Your task to perform on an android device: Show me recent news Image 0: 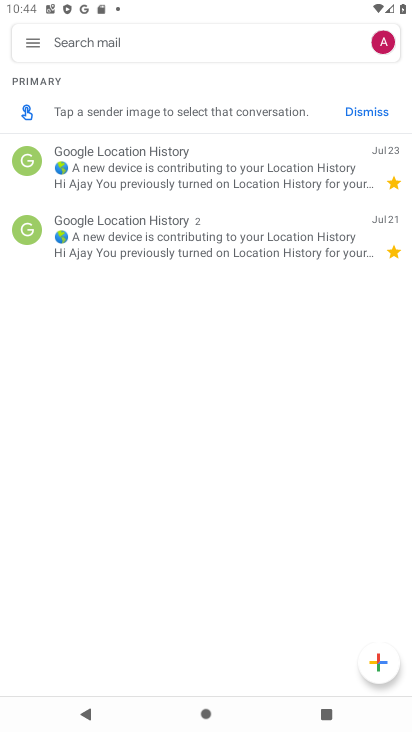
Step 0: press home button
Your task to perform on an android device: Show me recent news Image 1: 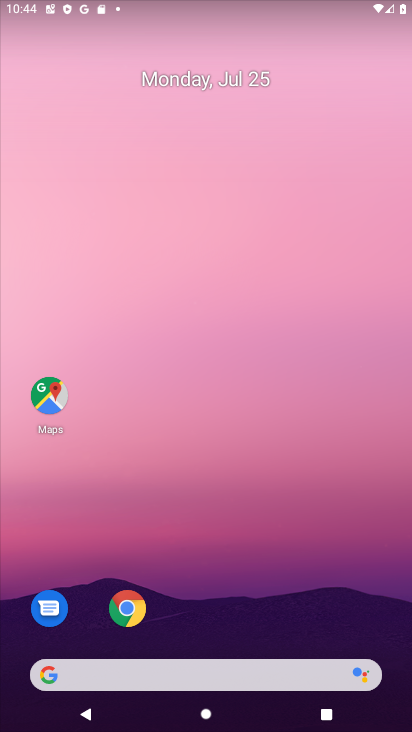
Step 1: drag from (169, 603) to (241, 51)
Your task to perform on an android device: Show me recent news Image 2: 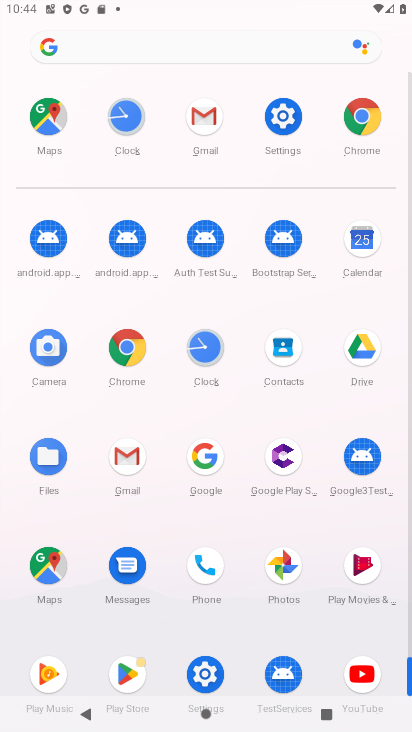
Step 2: click (196, 473)
Your task to perform on an android device: Show me recent news Image 3: 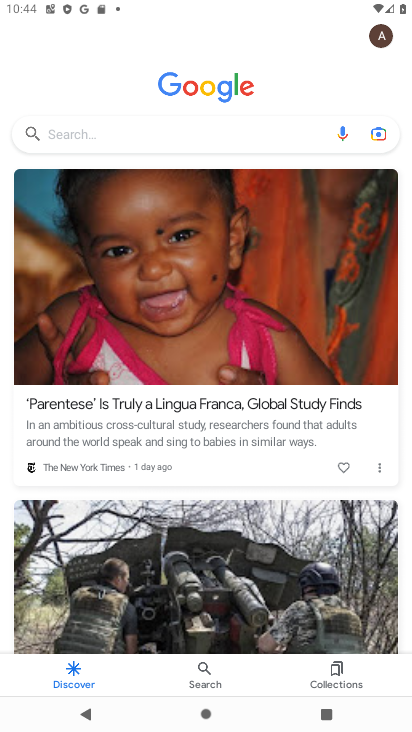
Step 3: click (211, 145)
Your task to perform on an android device: Show me recent news Image 4: 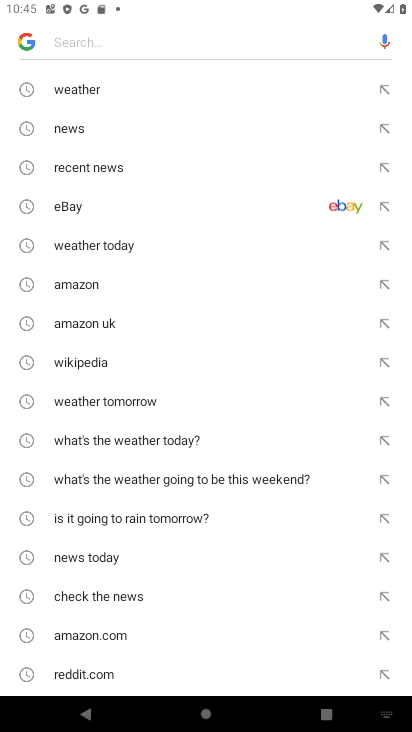
Step 4: click (134, 171)
Your task to perform on an android device: Show me recent news Image 5: 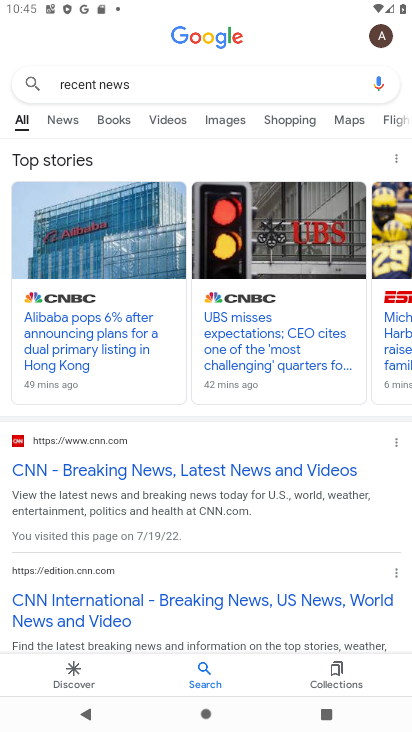
Step 5: click (76, 122)
Your task to perform on an android device: Show me recent news Image 6: 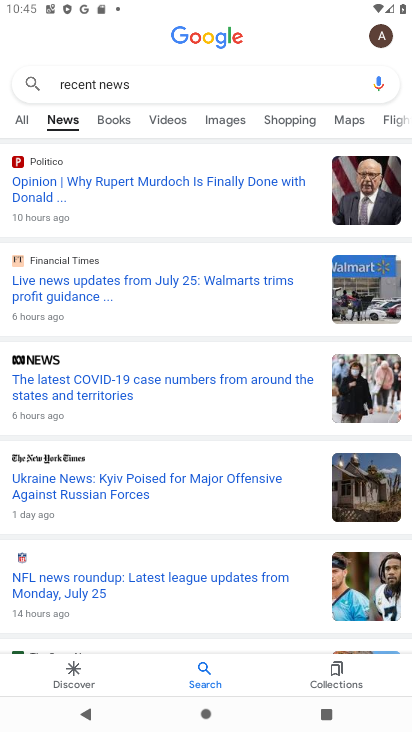
Step 6: task complete